Your task to perform on an android device: Open ESPN.com Image 0: 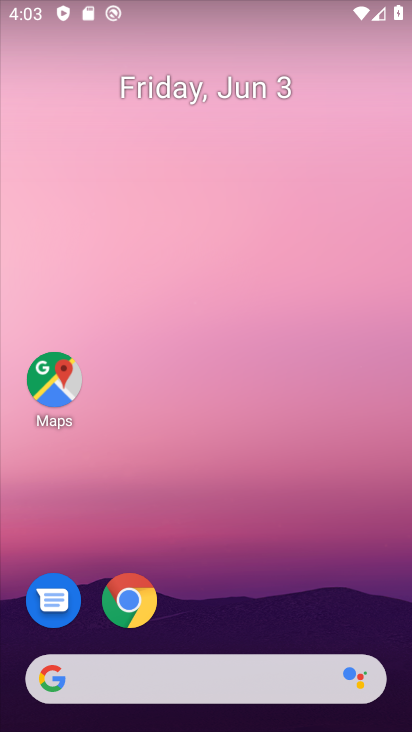
Step 0: click (123, 593)
Your task to perform on an android device: Open ESPN.com Image 1: 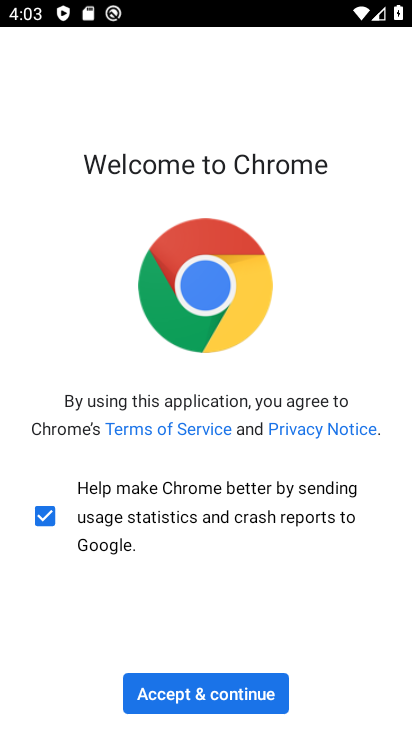
Step 1: click (214, 694)
Your task to perform on an android device: Open ESPN.com Image 2: 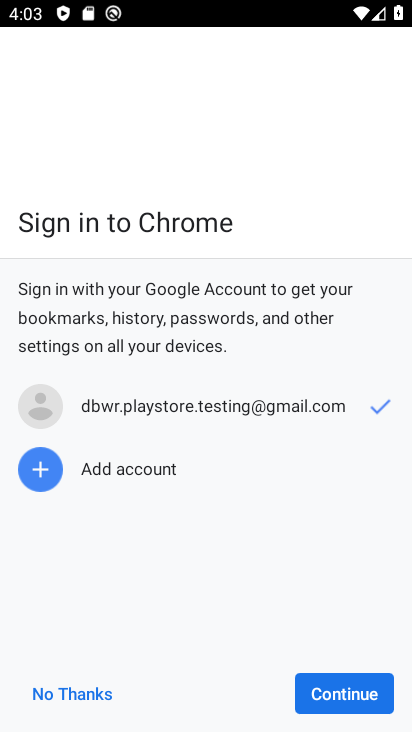
Step 2: click (313, 683)
Your task to perform on an android device: Open ESPN.com Image 3: 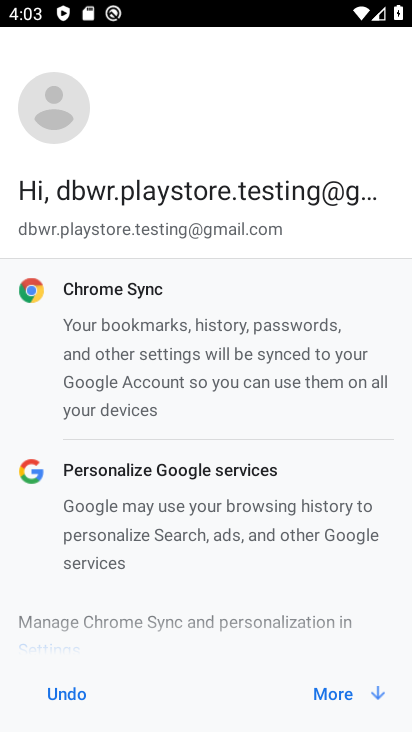
Step 3: click (343, 681)
Your task to perform on an android device: Open ESPN.com Image 4: 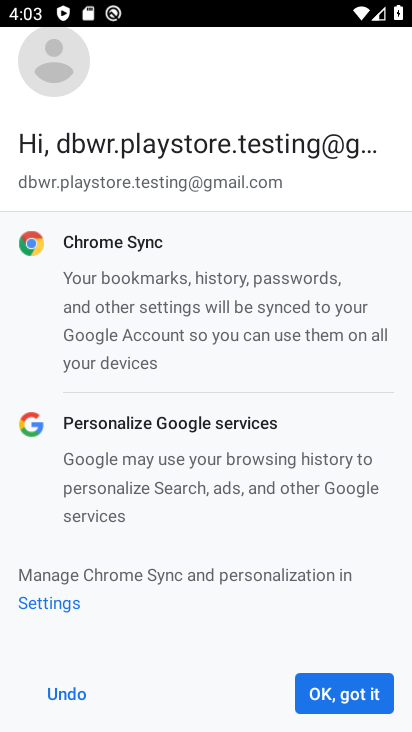
Step 4: click (340, 686)
Your task to perform on an android device: Open ESPN.com Image 5: 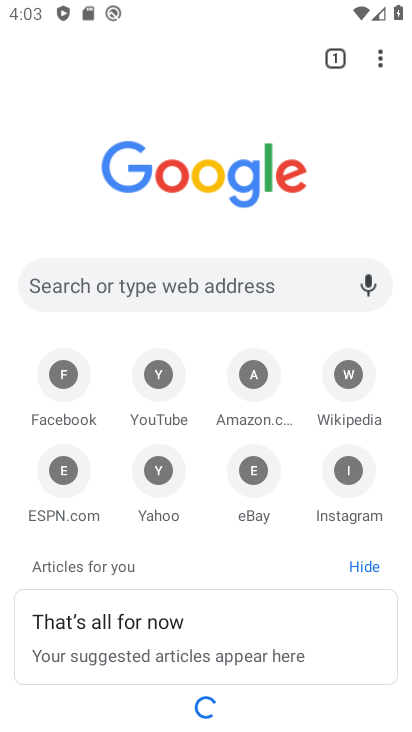
Step 5: click (254, 293)
Your task to perform on an android device: Open ESPN.com Image 6: 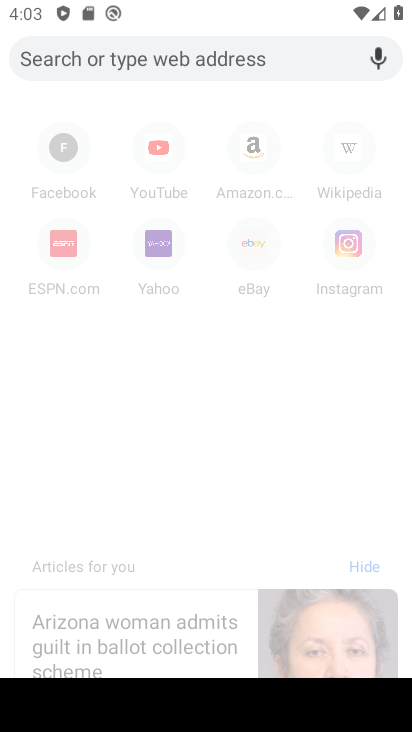
Step 6: type "ESPN.com"
Your task to perform on an android device: Open ESPN.com Image 7: 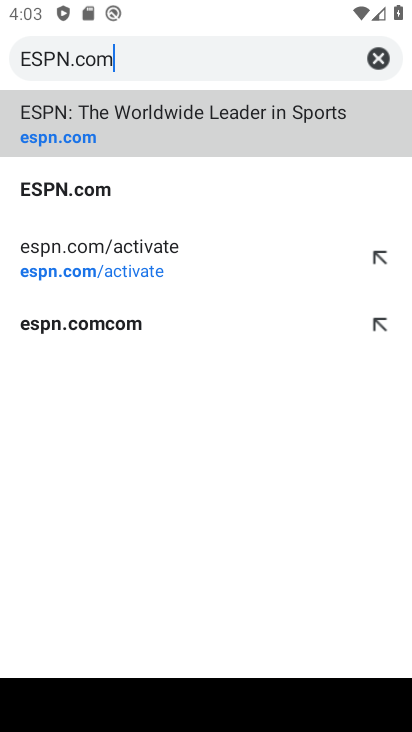
Step 7: click (53, 184)
Your task to perform on an android device: Open ESPN.com Image 8: 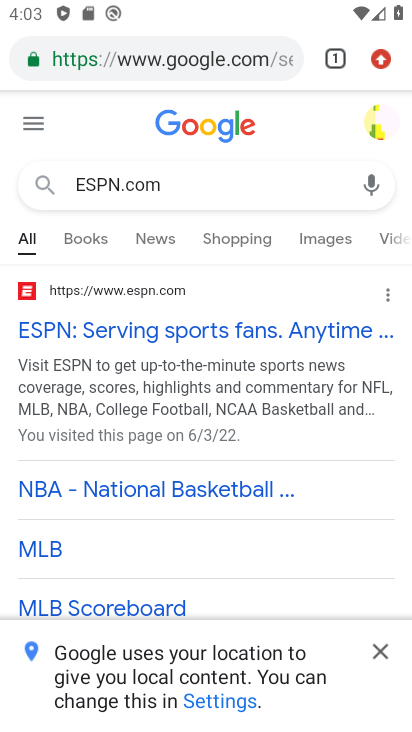
Step 8: task complete